Your task to perform on an android device: toggle show notifications on the lock screen Image 0: 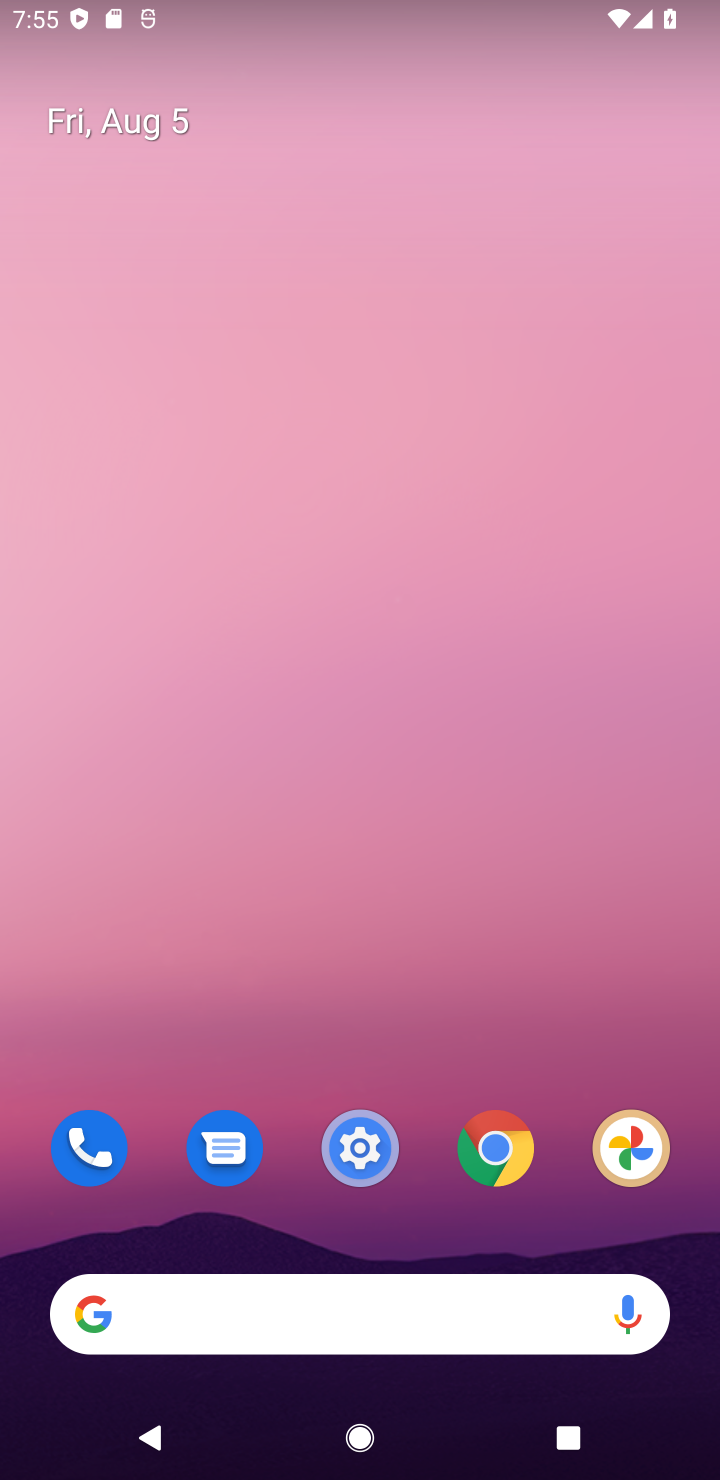
Step 0: click (352, 1191)
Your task to perform on an android device: toggle show notifications on the lock screen Image 1: 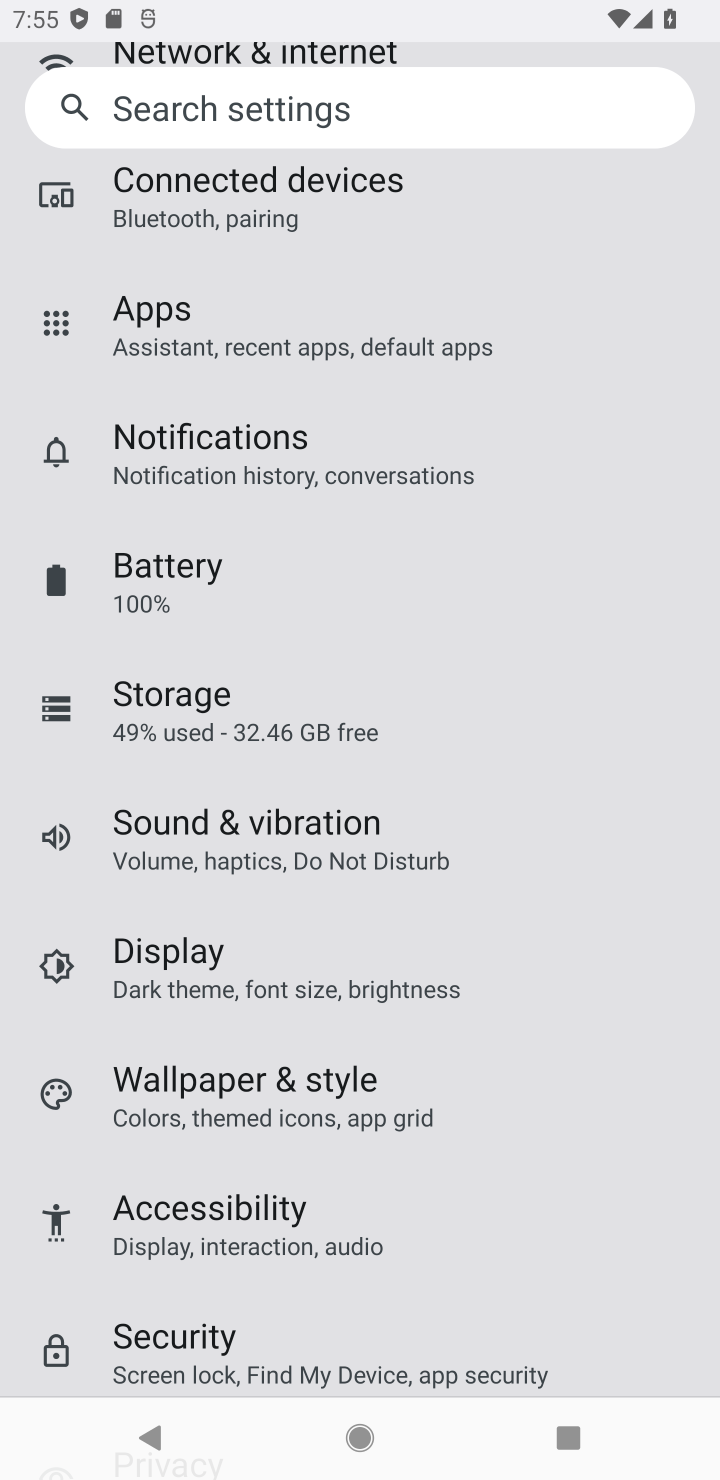
Step 1: click (253, 434)
Your task to perform on an android device: toggle show notifications on the lock screen Image 2: 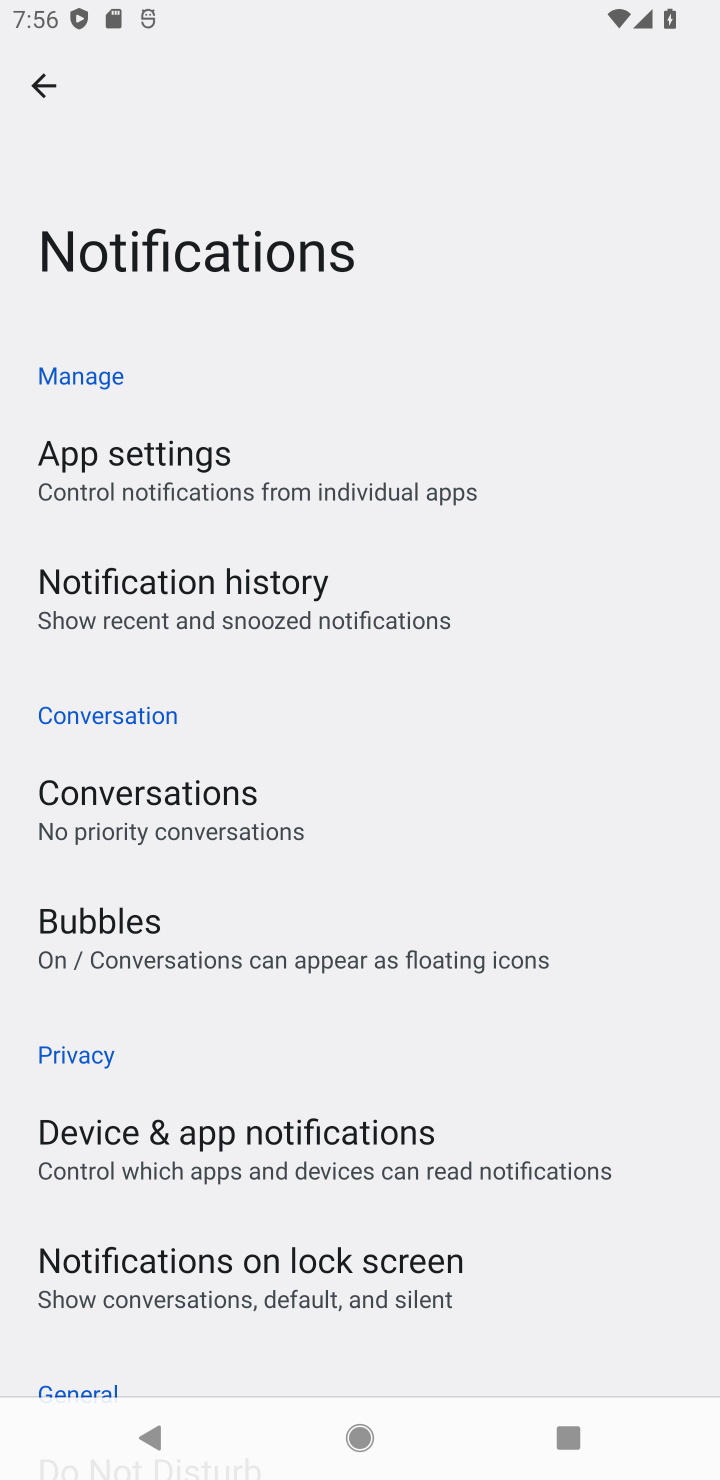
Step 2: click (290, 566)
Your task to perform on an android device: toggle show notifications on the lock screen Image 3: 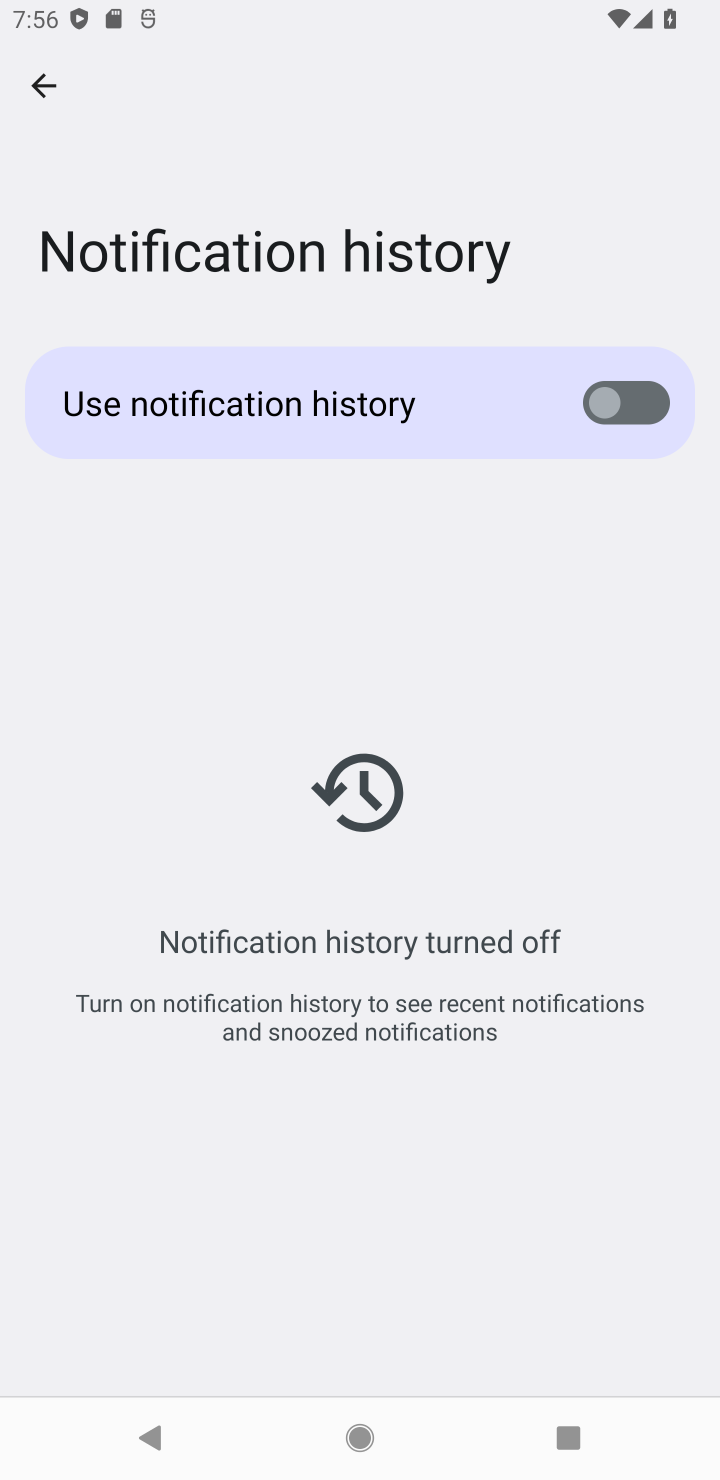
Step 3: click (650, 405)
Your task to perform on an android device: toggle show notifications on the lock screen Image 4: 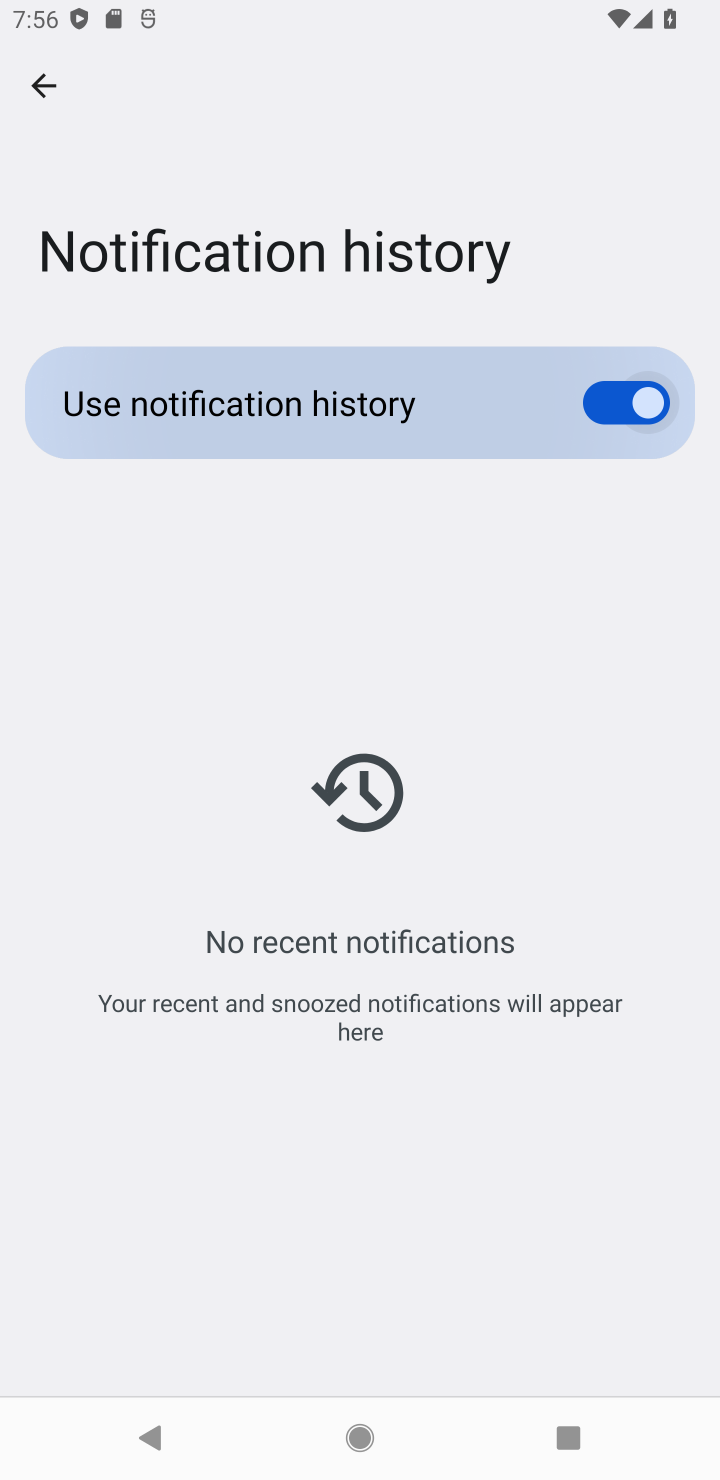
Step 4: task complete